Your task to perform on an android device: Open Maps and search for coffee Image 0: 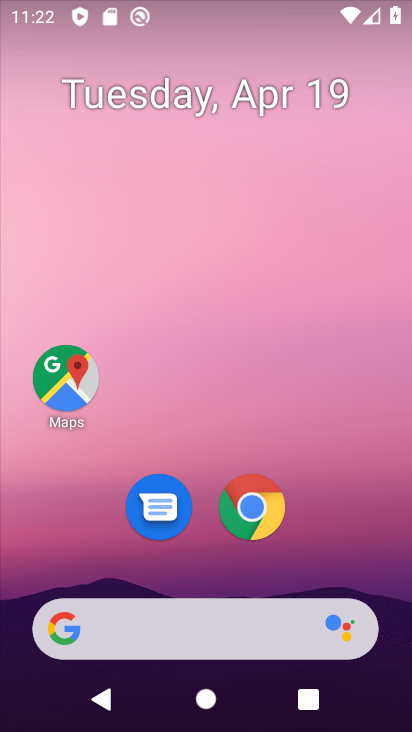
Step 0: drag from (395, 434) to (365, 90)
Your task to perform on an android device: Open Maps and search for coffee Image 1: 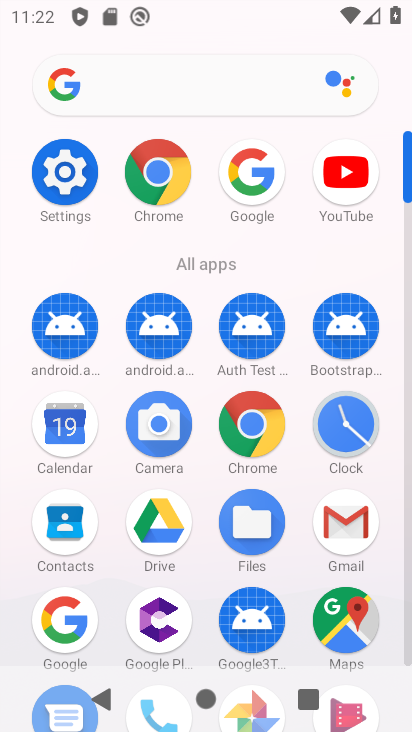
Step 1: click (350, 609)
Your task to perform on an android device: Open Maps and search for coffee Image 2: 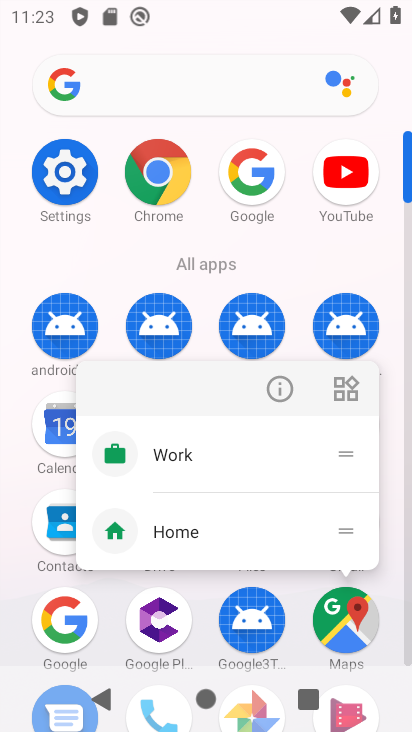
Step 2: click (357, 611)
Your task to perform on an android device: Open Maps and search for coffee Image 3: 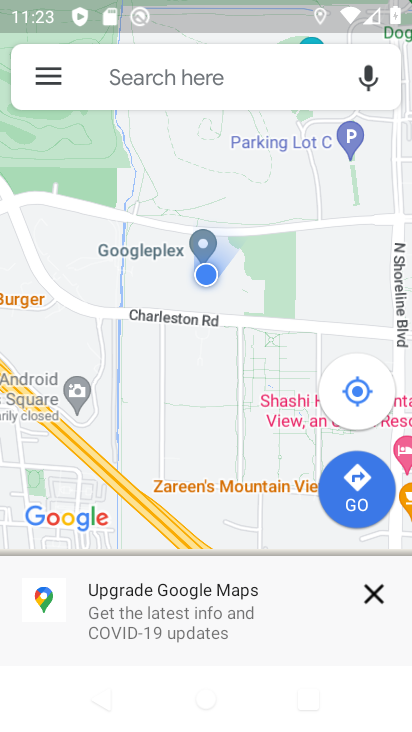
Step 3: click (157, 83)
Your task to perform on an android device: Open Maps and search for coffee Image 4: 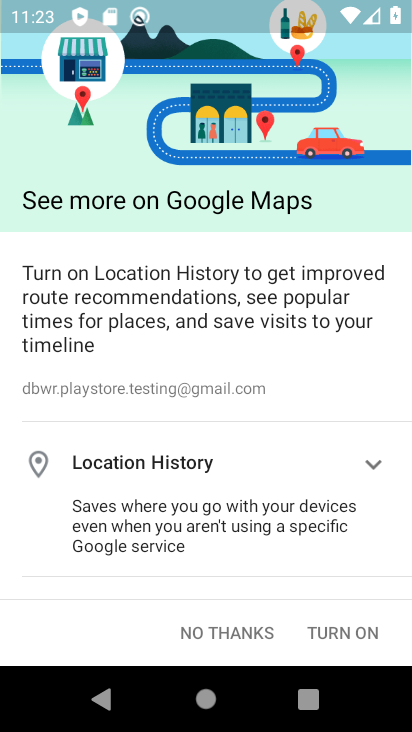
Step 4: click (222, 640)
Your task to perform on an android device: Open Maps and search for coffee Image 5: 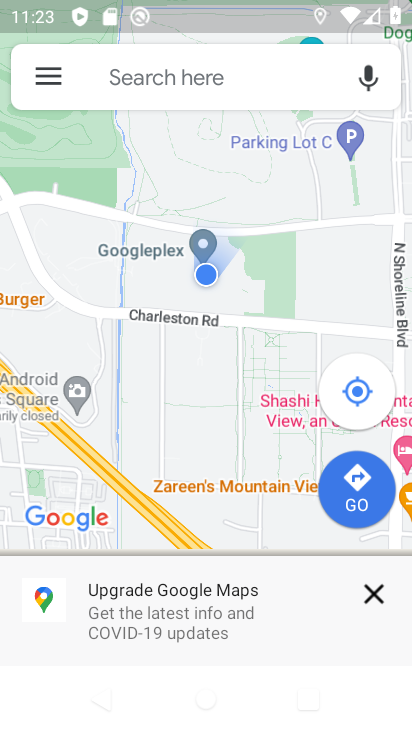
Step 5: click (177, 74)
Your task to perform on an android device: Open Maps and search for coffee Image 6: 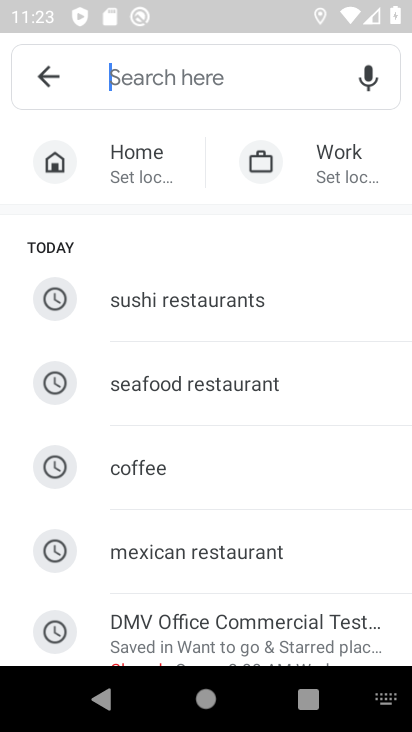
Step 6: type "coffee"
Your task to perform on an android device: Open Maps and search for coffee Image 7: 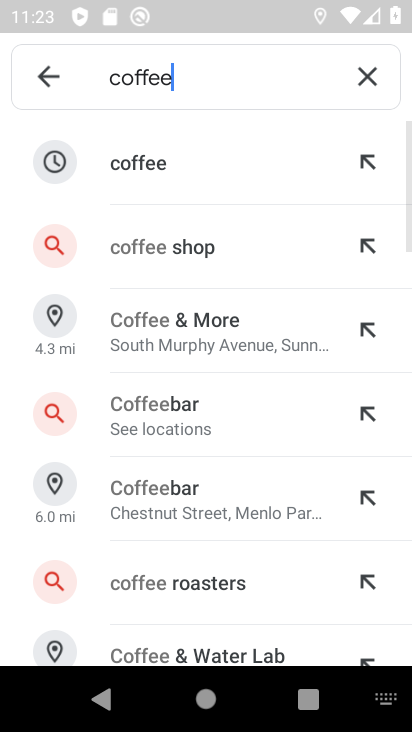
Step 7: click (154, 158)
Your task to perform on an android device: Open Maps and search for coffee Image 8: 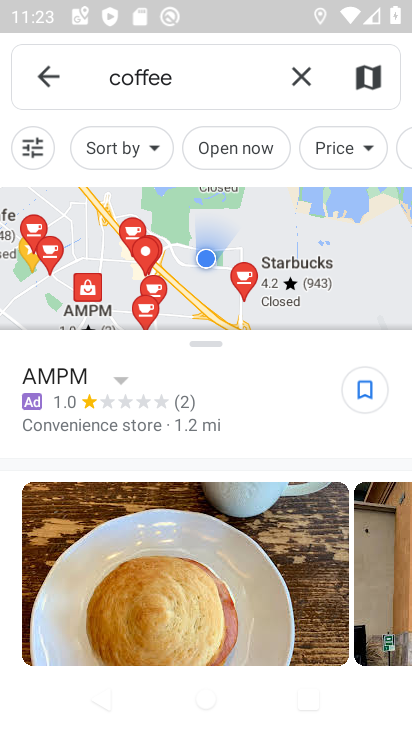
Step 8: task complete